Your task to perform on an android device: Go to Yahoo.com Image 0: 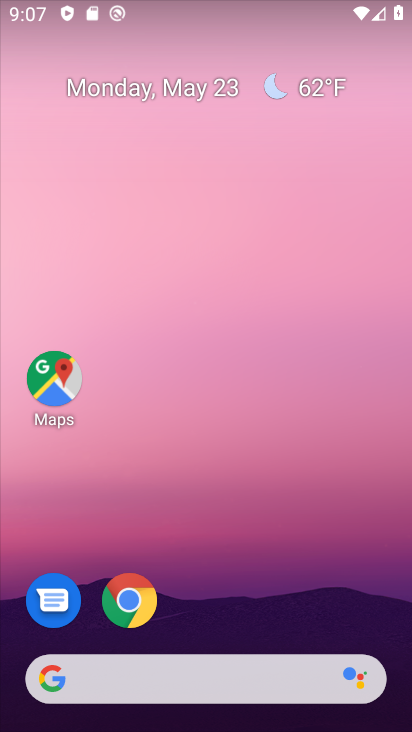
Step 0: drag from (208, 653) to (302, 61)
Your task to perform on an android device: Go to Yahoo.com Image 1: 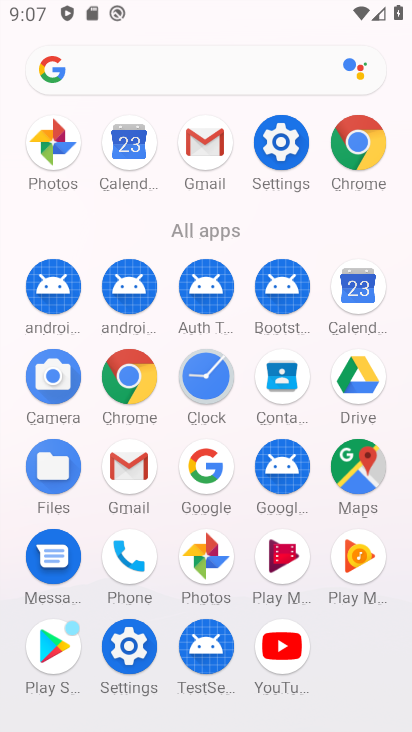
Step 1: click (132, 378)
Your task to perform on an android device: Go to Yahoo.com Image 2: 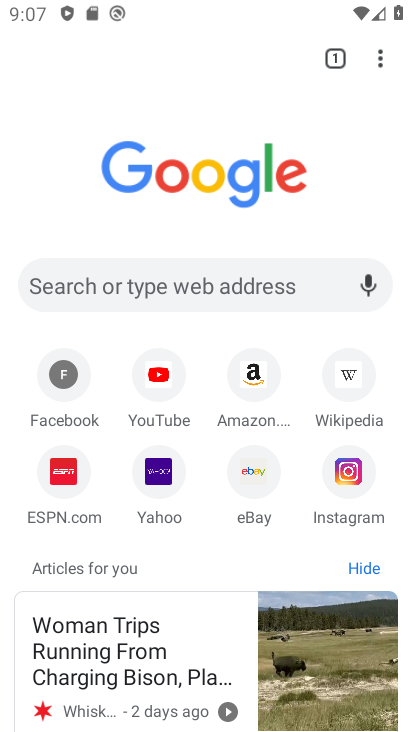
Step 2: click (154, 378)
Your task to perform on an android device: Go to Yahoo.com Image 3: 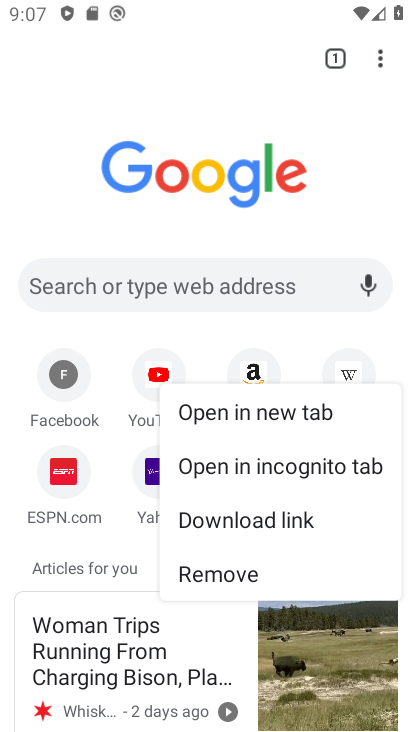
Step 3: task complete